Your task to perform on an android device: toggle wifi Image 0: 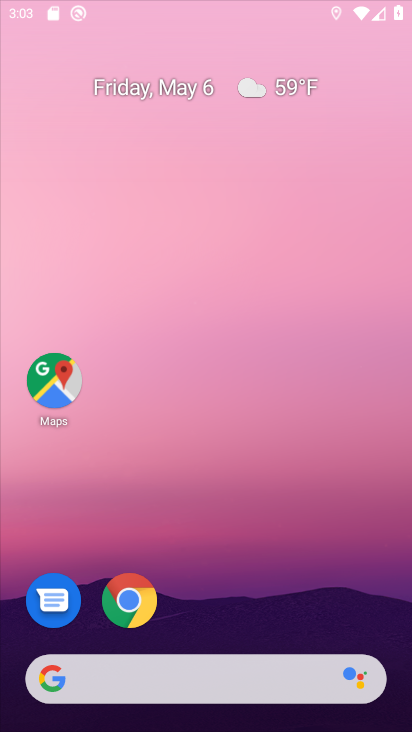
Step 0: click (218, 592)
Your task to perform on an android device: toggle wifi Image 1: 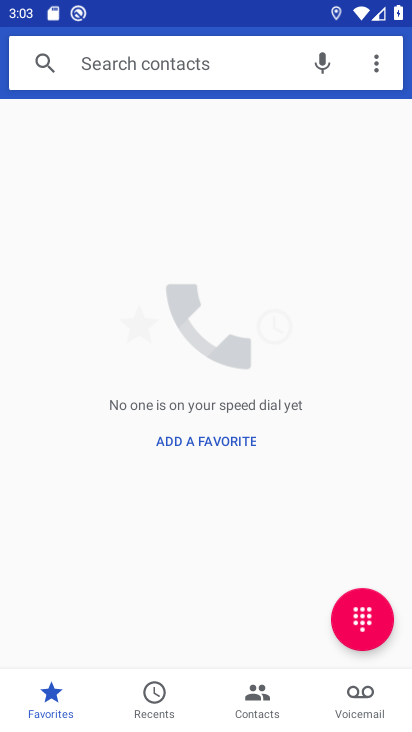
Step 1: press home button
Your task to perform on an android device: toggle wifi Image 2: 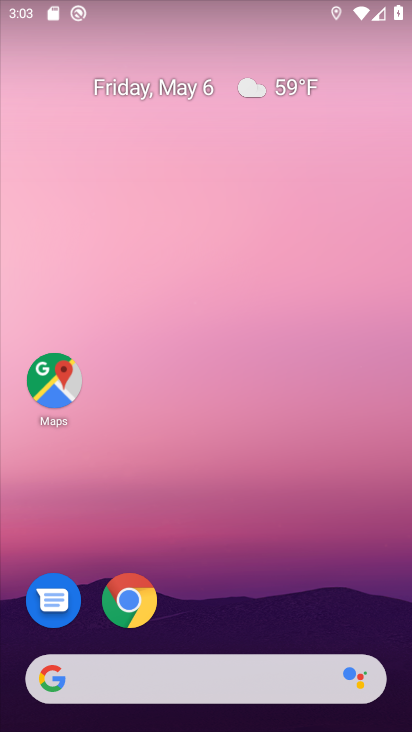
Step 2: drag from (231, 635) to (284, 79)
Your task to perform on an android device: toggle wifi Image 3: 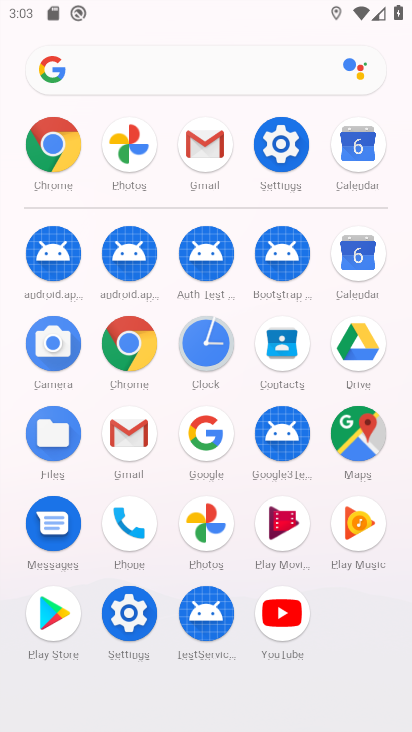
Step 3: click (274, 145)
Your task to perform on an android device: toggle wifi Image 4: 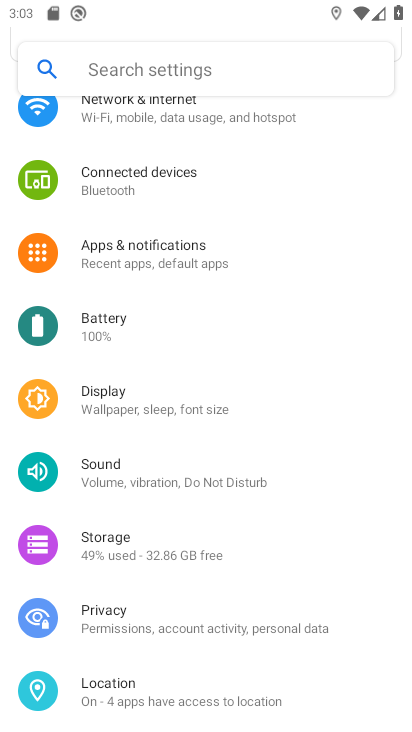
Step 4: drag from (230, 191) to (235, 567)
Your task to perform on an android device: toggle wifi Image 5: 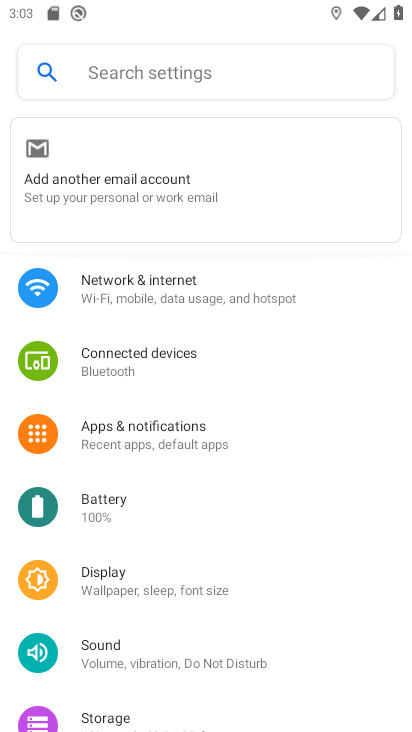
Step 5: click (191, 267)
Your task to perform on an android device: toggle wifi Image 6: 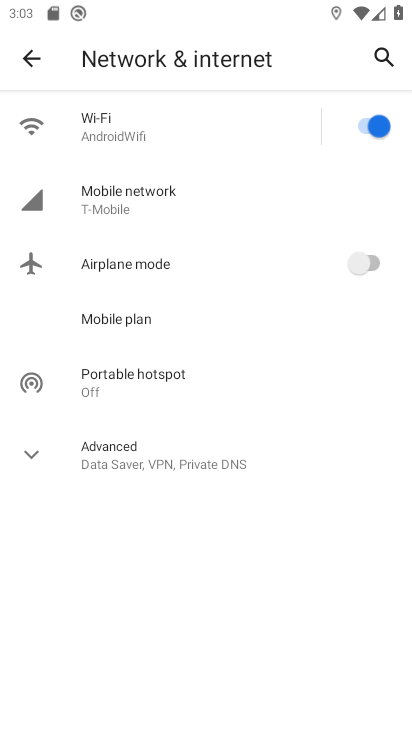
Step 6: click (370, 127)
Your task to perform on an android device: toggle wifi Image 7: 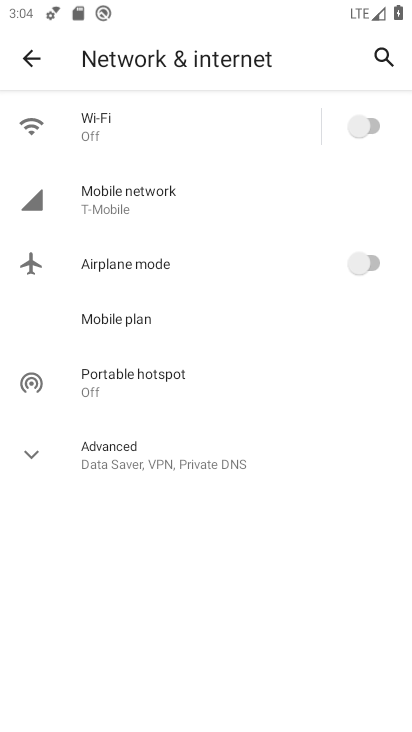
Step 7: task complete